Your task to perform on an android device: Go to Wikipedia Image 0: 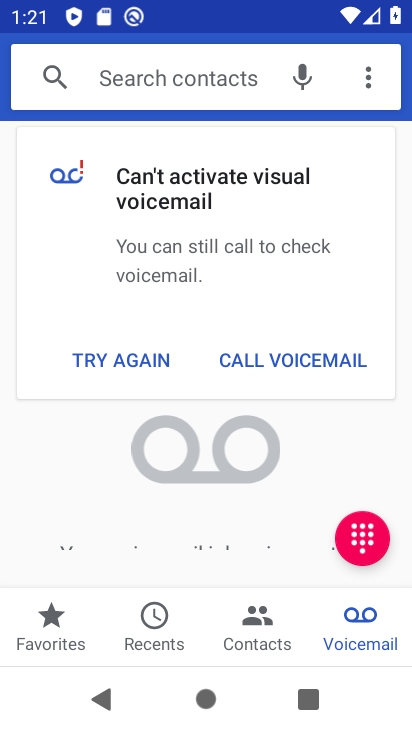
Step 0: press home button
Your task to perform on an android device: Go to Wikipedia Image 1: 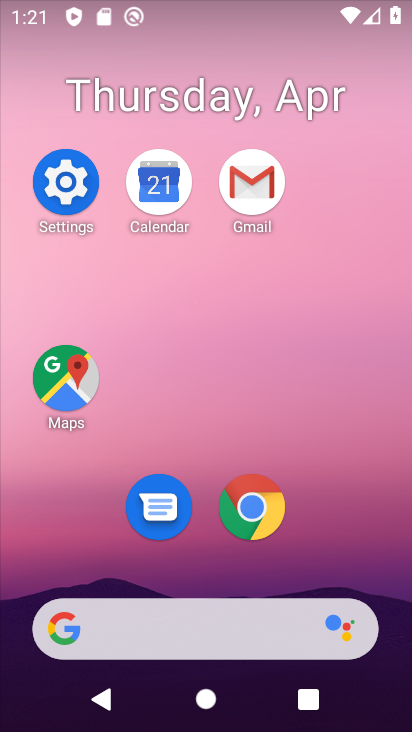
Step 1: click (245, 503)
Your task to perform on an android device: Go to Wikipedia Image 2: 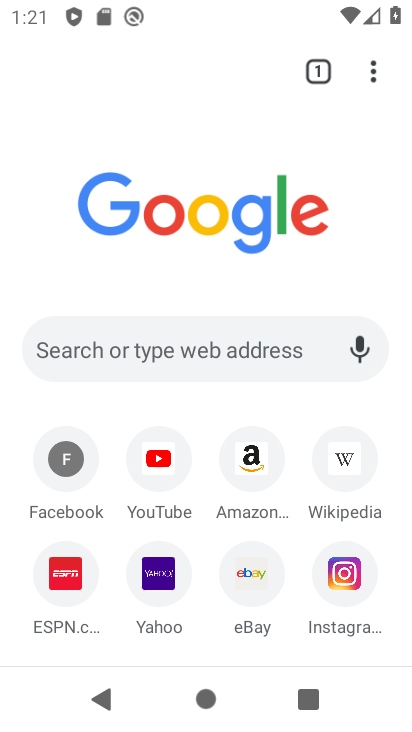
Step 2: click (347, 461)
Your task to perform on an android device: Go to Wikipedia Image 3: 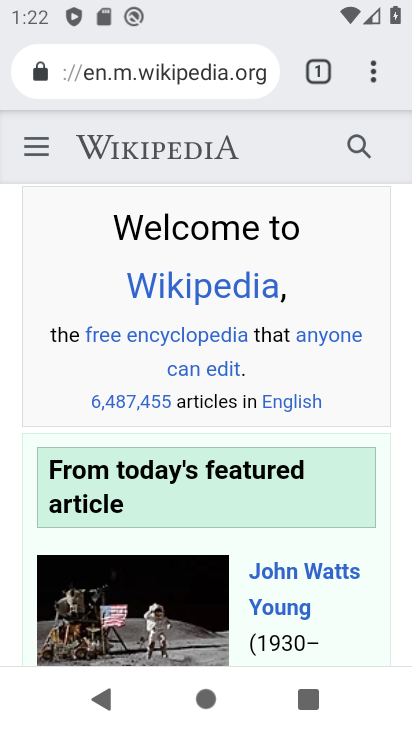
Step 3: task complete